Your task to perform on an android device: Open Google Chrome Image 0: 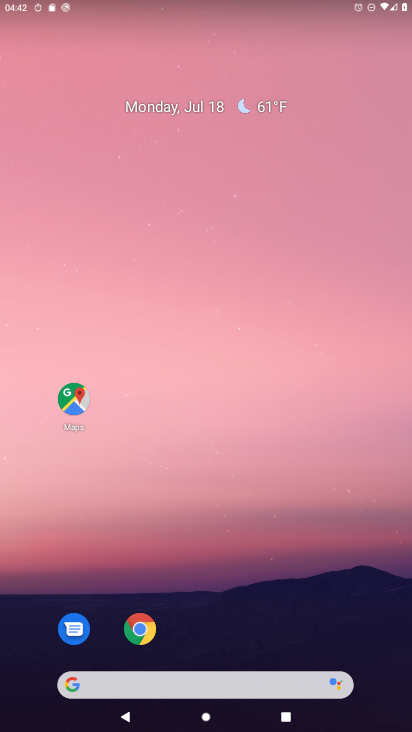
Step 0: click (142, 631)
Your task to perform on an android device: Open Google Chrome Image 1: 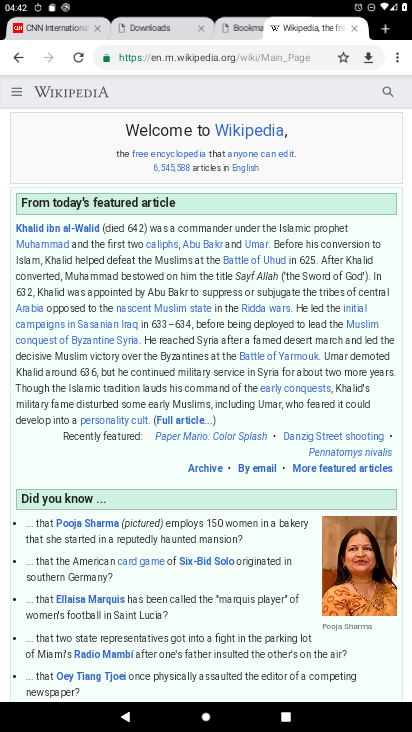
Step 1: task complete